Your task to perform on an android device: Open Yahoo.com Image 0: 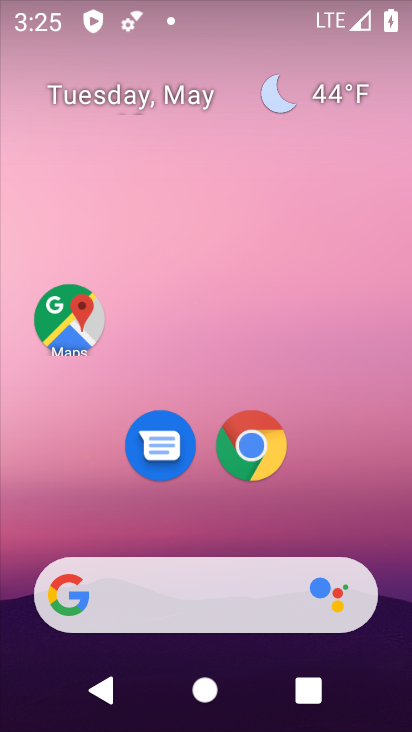
Step 0: click (253, 444)
Your task to perform on an android device: Open Yahoo.com Image 1: 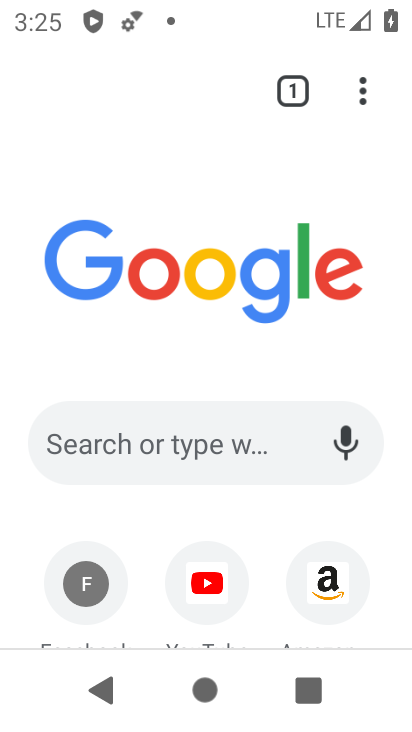
Step 1: drag from (236, 594) to (289, 231)
Your task to perform on an android device: Open Yahoo.com Image 2: 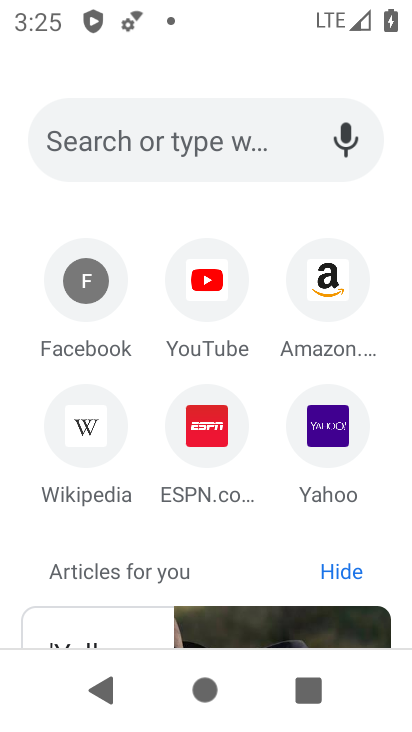
Step 2: click (325, 461)
Your task to perform on an android device: Open Yahoo.com Image 3: 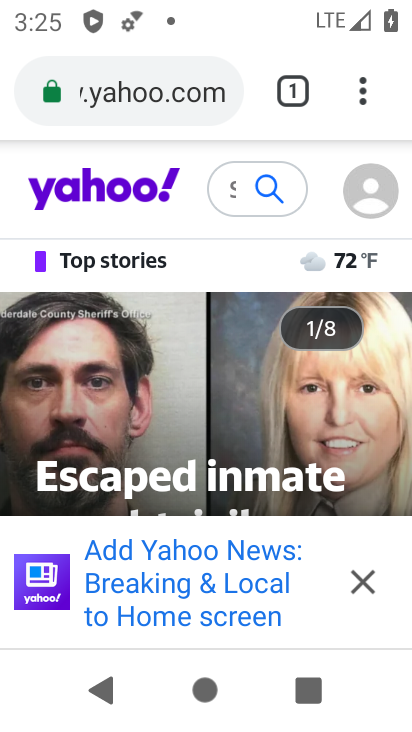
Step 3: task complete